Your task to perform on an android device: open the mobile data screen to see how much data has been used Image 0: 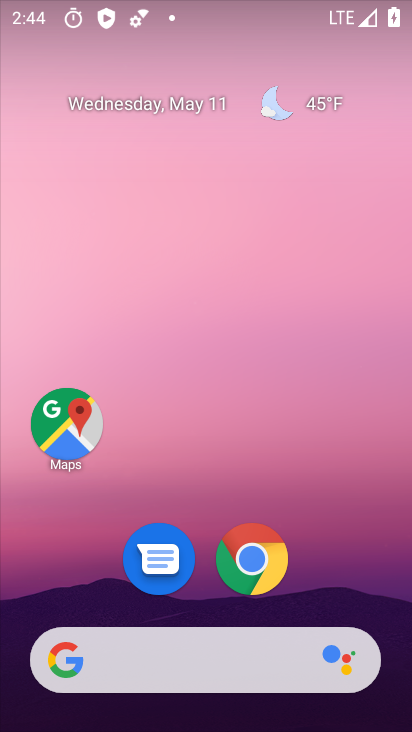
Step 0: drag from (329, 483) to (186, 12)
Your task to perform on an android device: open the mobile data screen to see how much data has been used Image 1: 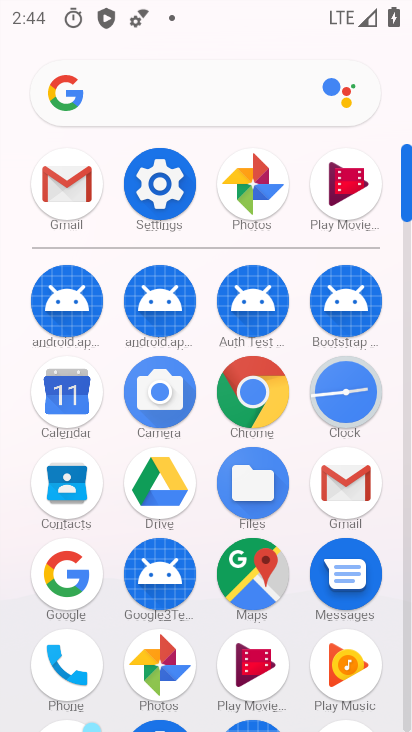
Step 1: click (159, 195)
Your task to perform on an android device: open the mobile data screen to see how much data has been used Image 2: 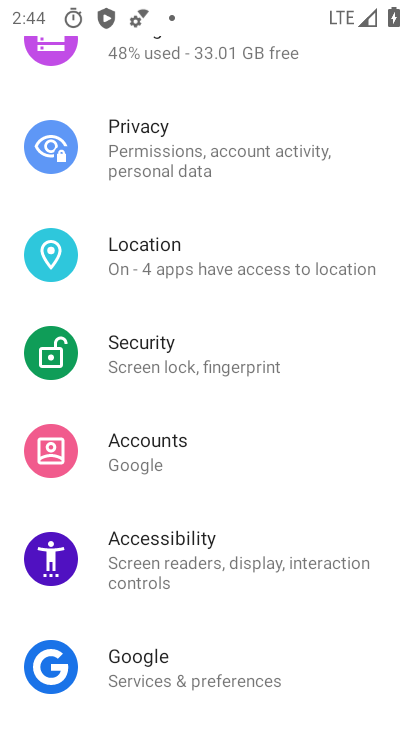
Step 2: drag from (242, 143) to (224, 624)
Your task to perform on an android device: open the mobile data screen to see how much data has been used Image 3: 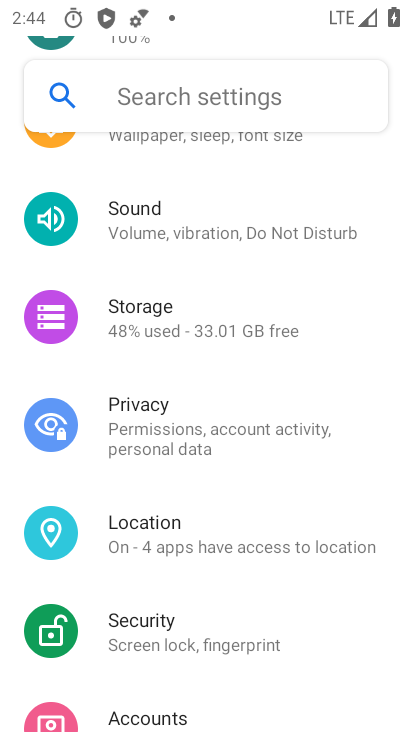
Step 3: drag from (251, 205) to (212, 585)
Your task to perform on an android device: open the mobile data screen to see how much data has been used Image 4: 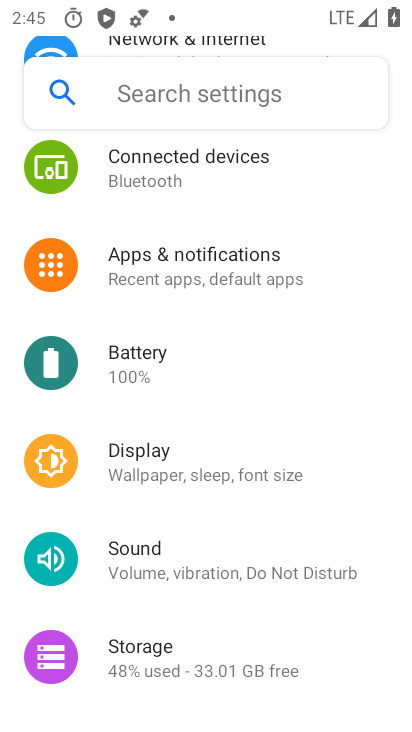
Step 4: drag from (224, 151) to (242, 577)
Your task to perform on an android device: open the mobile data screen to see how much data has been used Image 5: 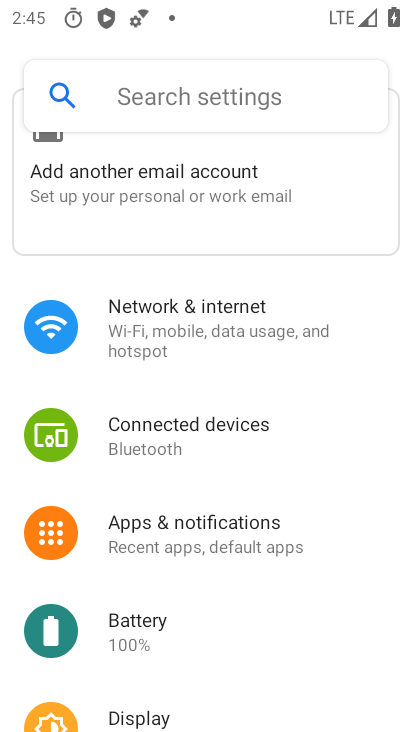
Step 5: click (169, 320)
Your task to perform on an android device: open the mobile data screen to see how much data has been used Image 6: 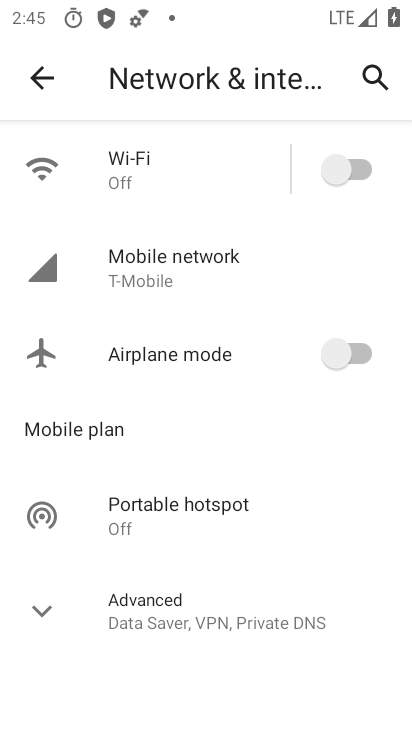
Step 6: click (175, 269)
Your task to perform on an android device: open the mobile data screen to see how much data has been used Image 7: 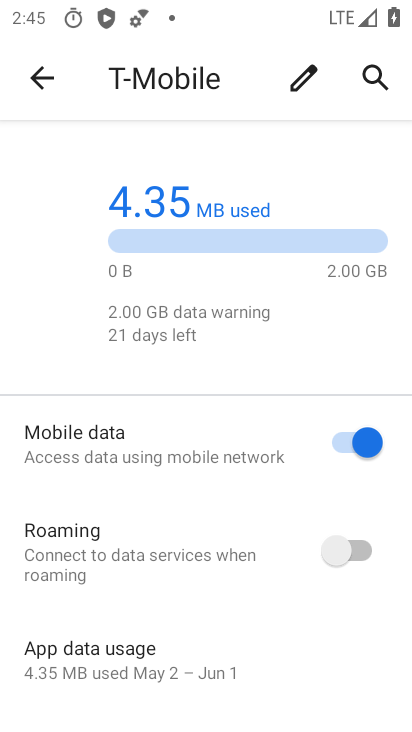
Step 7: task complete